Your task to perform on an android device: see sites visited before in the chrome app Image 0: 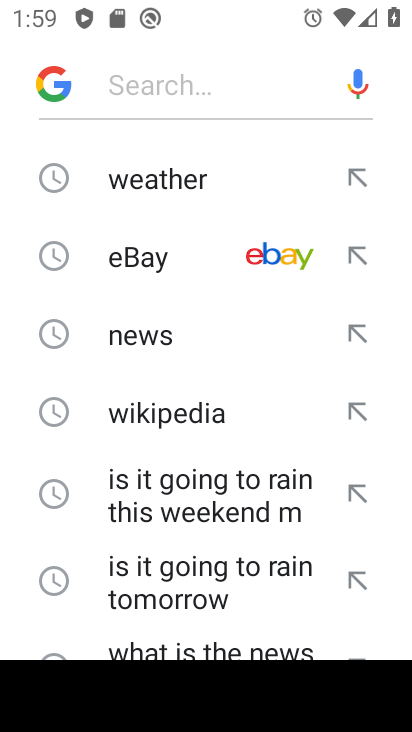
Step 0: press home button
Your task to perform on an android device: see sites visited before in the chrome app Image 1: 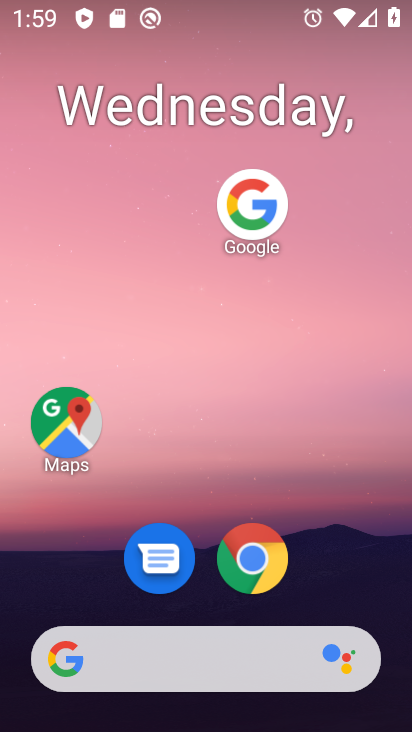
Step 1: drag from (390, 577) to (348, 193)
Your task to perform on an android device: see sites visited before in the chrome app Image 2: 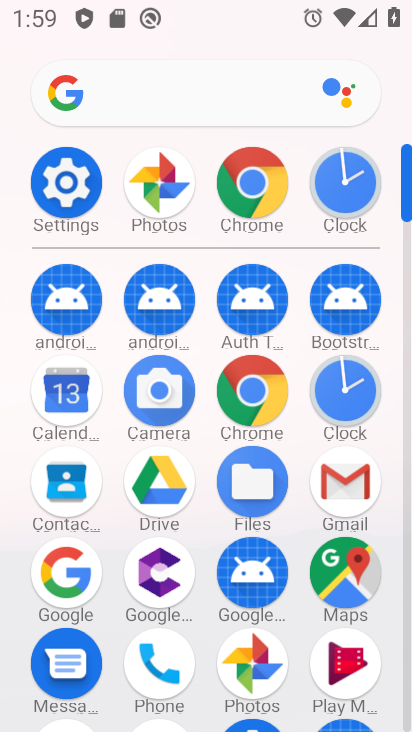
Step 2: click (257, 201)
Your task to perform on an android device: see sites visited before in the chrome app Image 3: 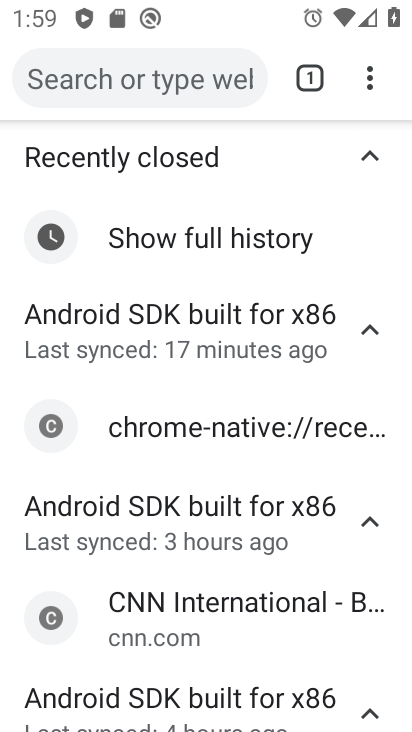
Step 3: click (372, 96)
Your task to perform on an android device: see sites visited before in the chrome app Image 4: 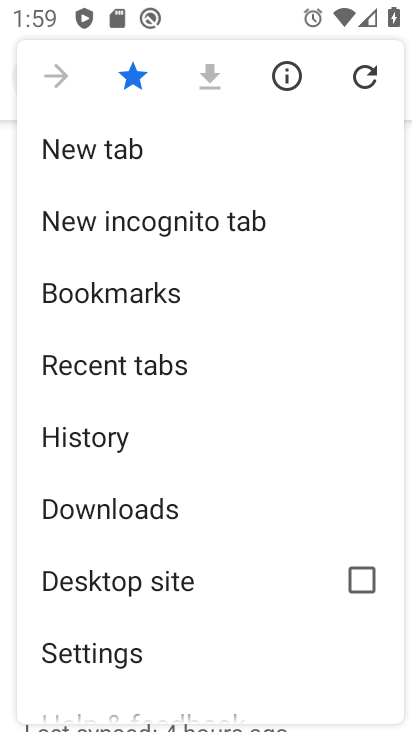
Step 4: click (117, 440)
Your task to perform on an android device: see sites visited before in the chrome app Image 5: 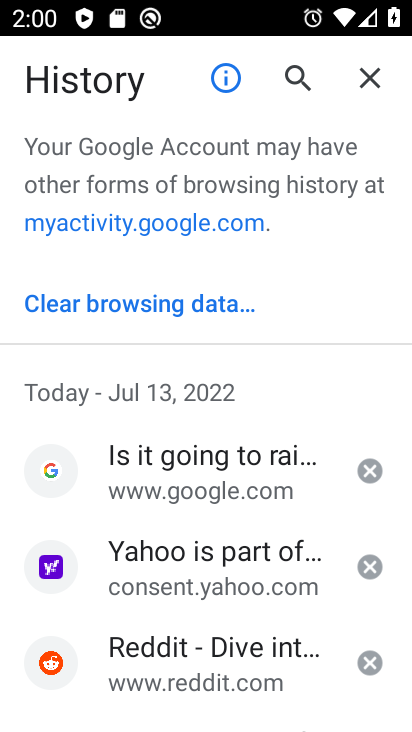
Step 5: task complete